Your task to perform on an android device: check storage Image 0: 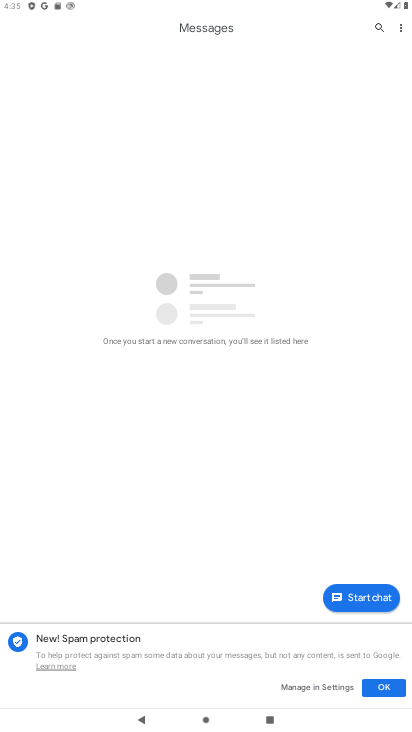
Step 0: press home button
Your task to perform on an android device: check storage Image 1: 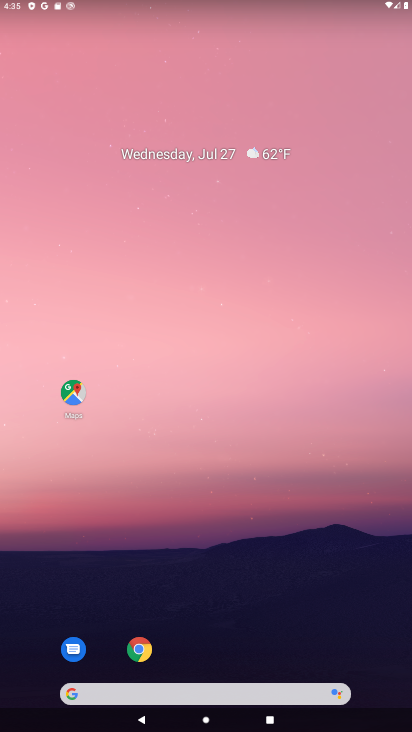
Step 1: drag from (212, 546) to (225, 155)
Your task to perform on an android device: check storage Image 2: 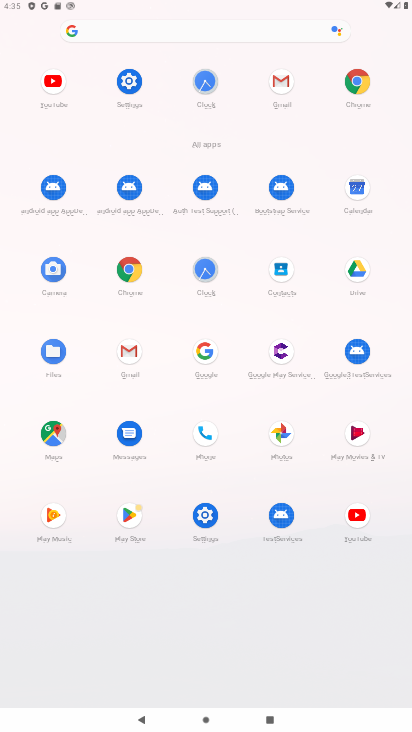
Step 2: click (201, 522)
Your task to perform on an android device: check storage Image 3: 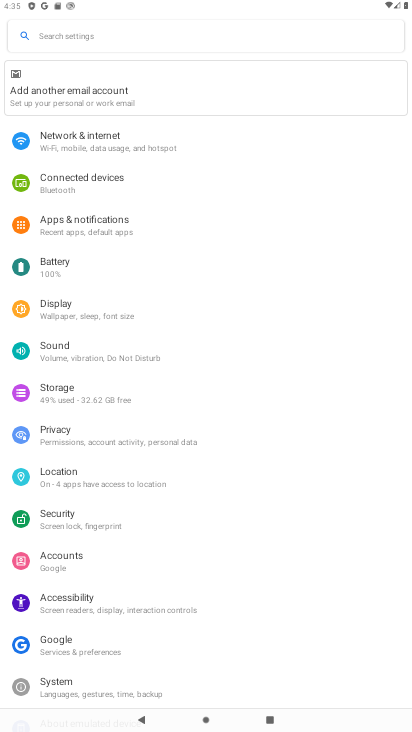
Step 3: click (47, 391)
Your task to perform on an android device: check storage Image 4: 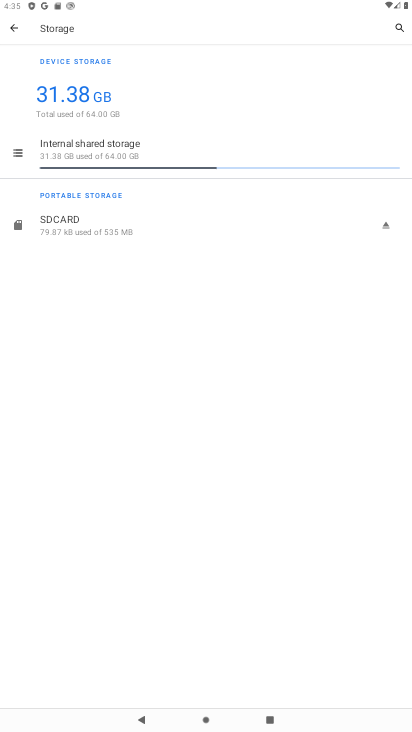
Step 4: task complete